Your task to perform on an android device: What's the weather today? Image 0: 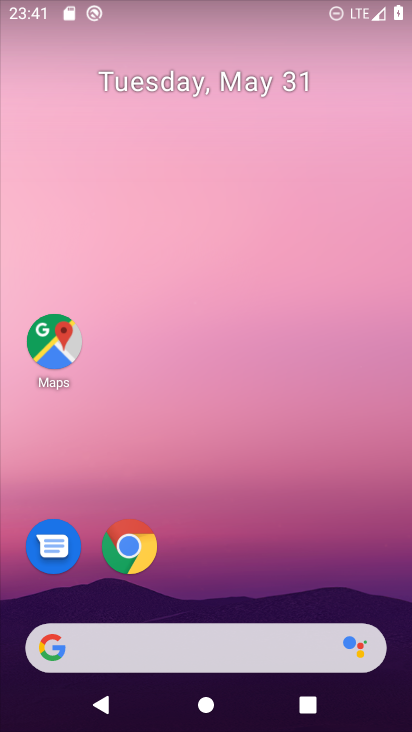
Step 0: drag from (2, 228) to (384, 253)
Your task to perform on an android device: What's the weather today? Image 1: 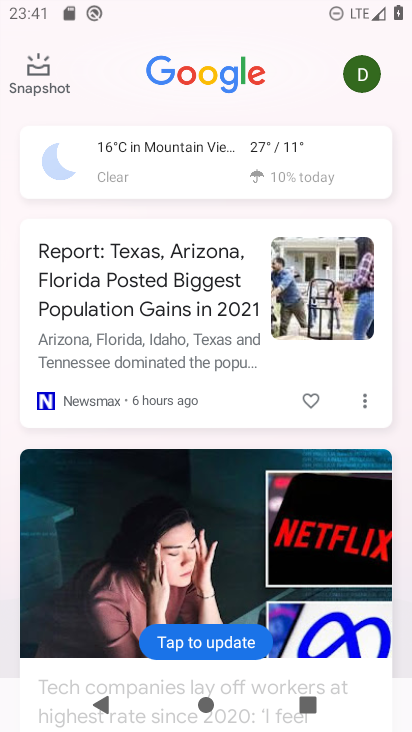
Step 1: click (282, 150)
Your task to perform on an android device: What's the weather today? Image 2: 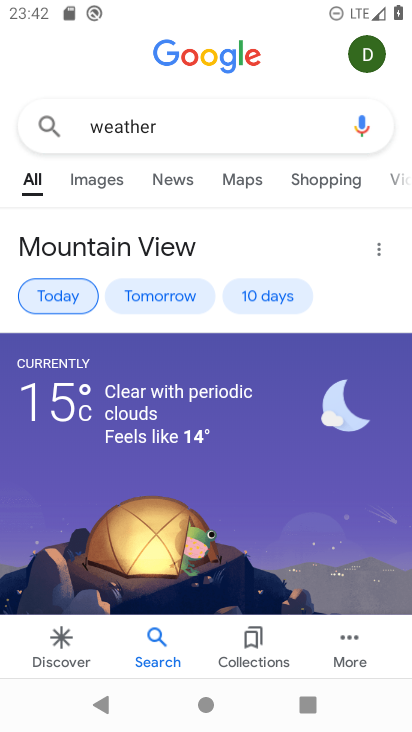
Step 2: click (54, 279)
Your task to perform on an android device: What's the weather today? Image 3: 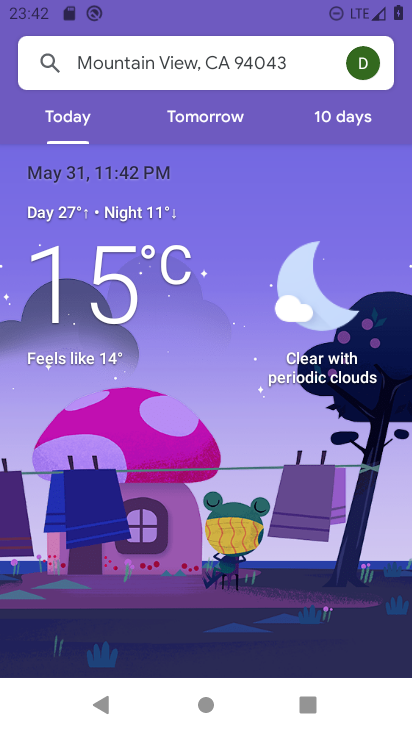
Step 3: task complete